Your task to perform on an android device: toggle javascript in the chrome app Image 0: 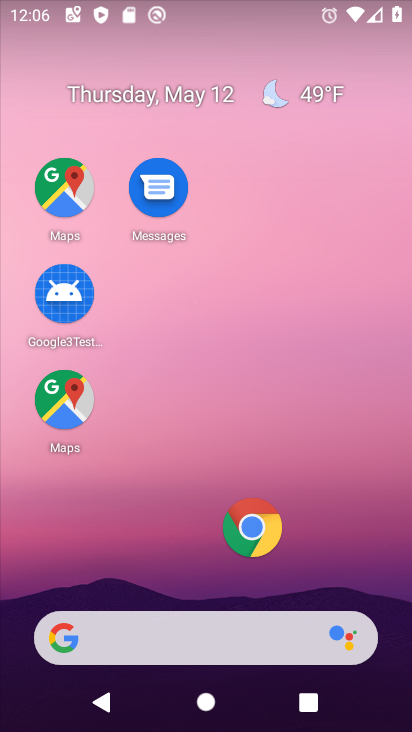
Step 0: click (272, 543)
Your task to perform on an android device: toggle javascript in the chrome app Image 1: 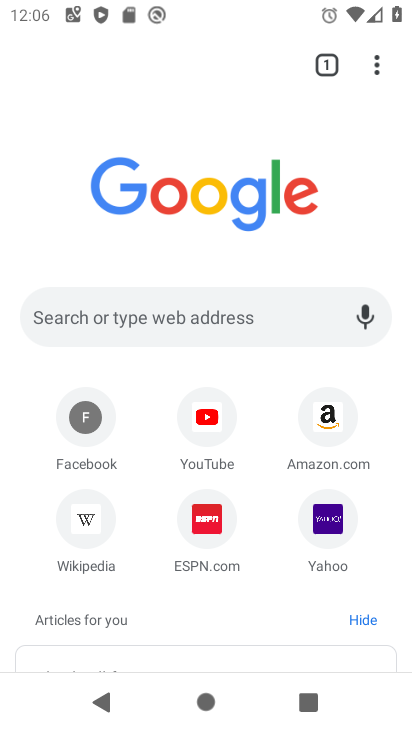
Step 1: click (375, 65)
Your task to perform on an android device: toggle javascript in the chrome app Image 2: 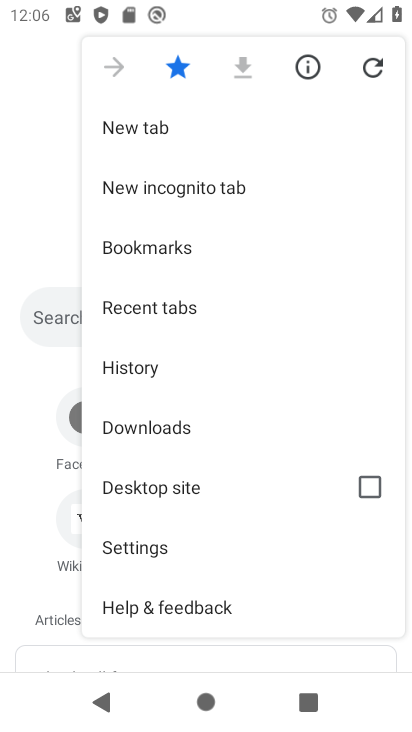
Step 2: click (139, 545)
Your task to perform on an android device: toggle javascript in the chrome app Image 3: 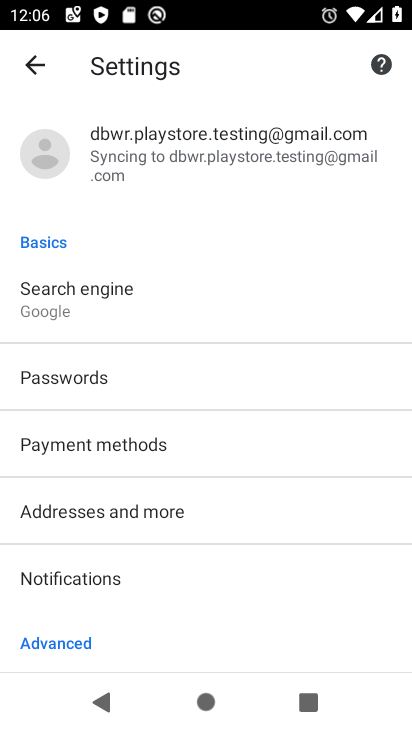
Step 3: drag from (139, 545) to (73, 203)
Your task to perform on an android device: toggle javascript in the chrome app Image 4: 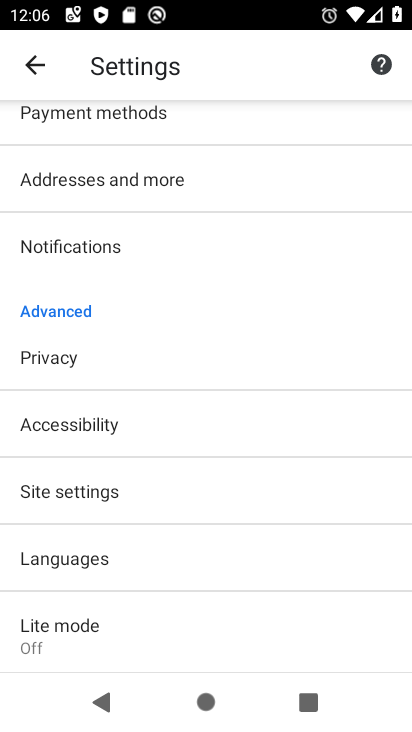
Step 4: click (95, 471)
Your task to perform on an android device: toggle javascript in the chrome app Image 5: 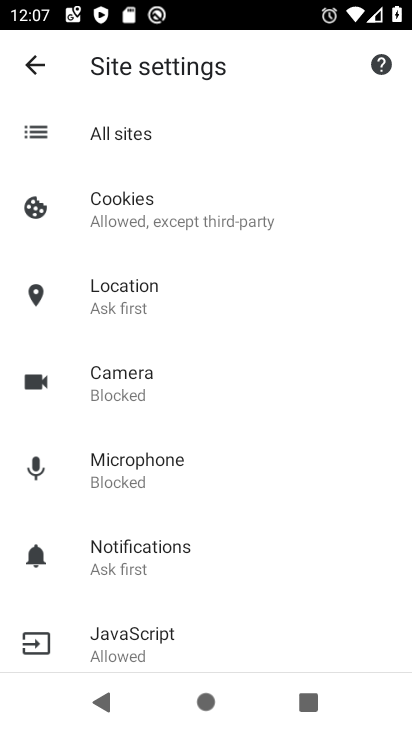
Step 5: click (99, 633)
Your task to perform on an android device: toggle javascript in the chrome app Image 6: 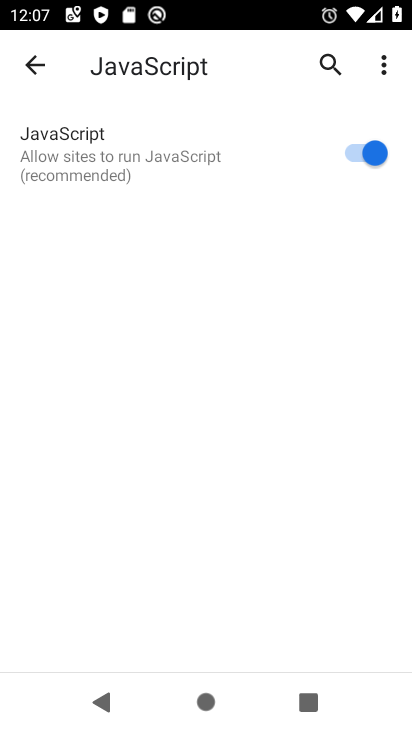
Step 6: click (350, 155)
Your task to perform on an android device: toggle javascript in the chrome app Image 7: 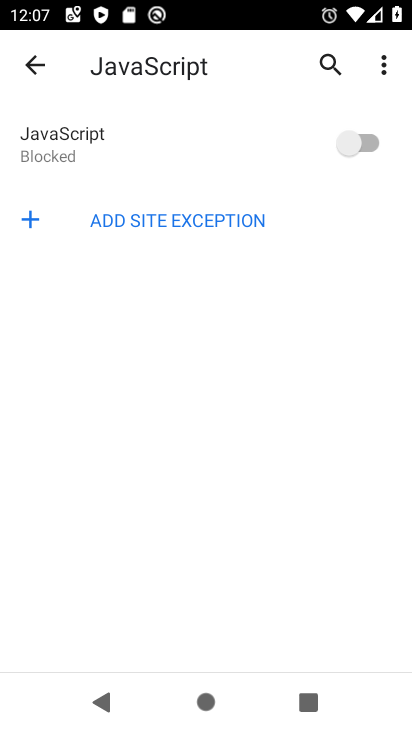
Step 7: task complete